Your task to perform on an android device: Search for vegetarian restaurants on Maps Image 0: 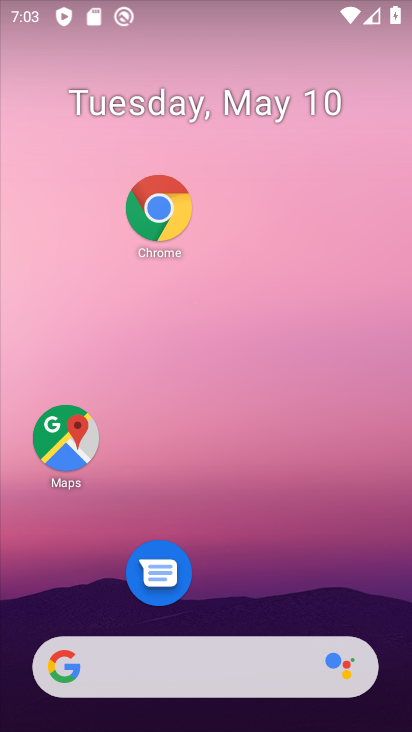
Step 0: click (95, 442)
Your task to perform on an android device: Search for vegetarian restaurants on Maps Image 1: 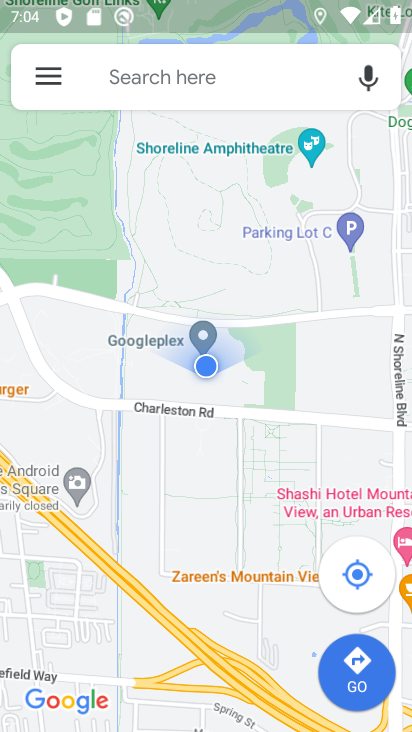
Step 1: click (168, 73)
Your task to perform on an android device: Search for vegetarian restaurants on Maps Image 2: 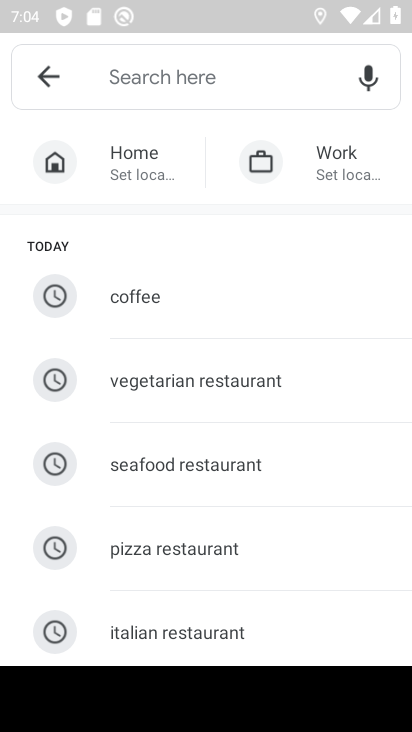
Step 2: click (168, 73)
Your task to perform on an android device: Search for vegetarian restaurants on Maps Image 3: 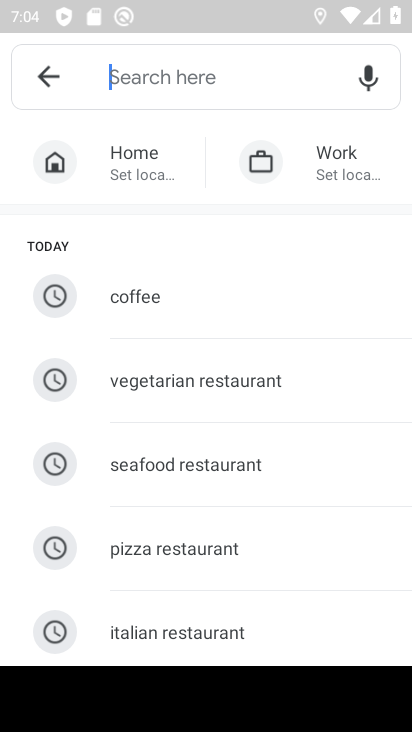
Step 3: click (197, 396)
Your task to perform on an android device: Search for vegetarian restaurants on Maps Image 4: 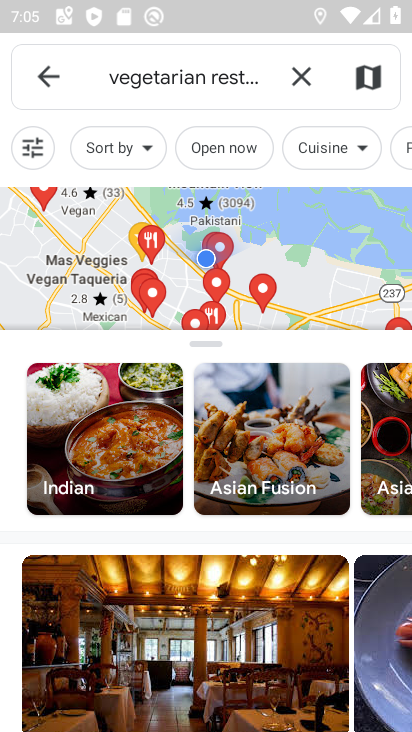
Step 4: click (194, 290)
Your task to perform on an android device: Search for vegetarian restaurants on Maps Image 5: 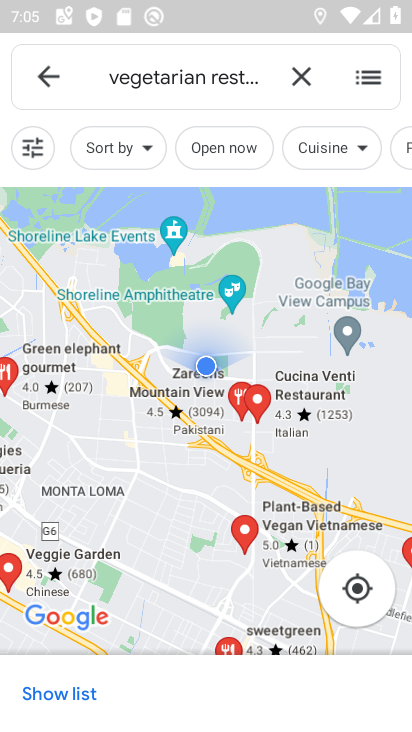
Step 5: task complete